Your task to perform on an android device: delete browsing data in the chrome app Image 0: 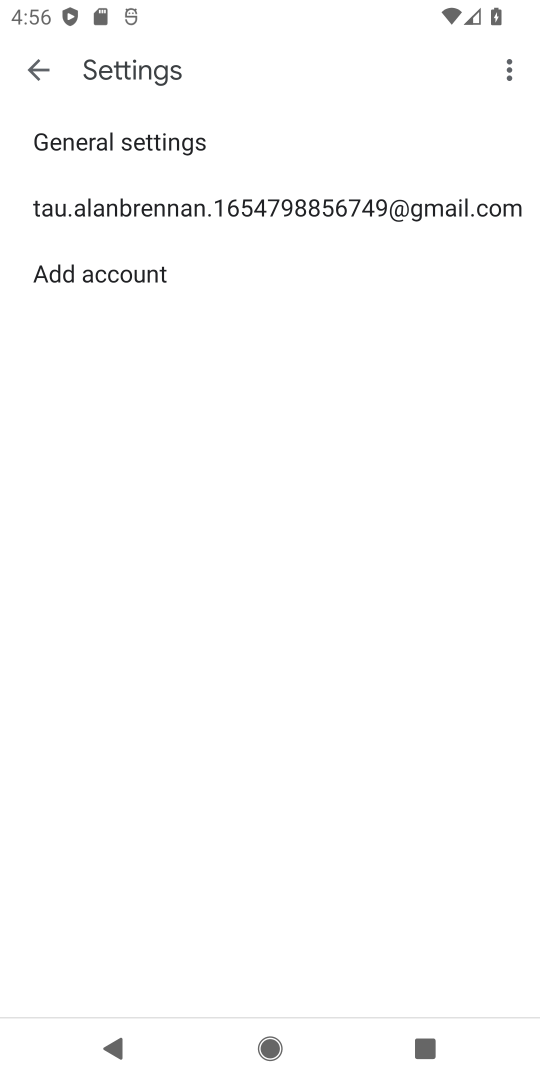
Step 0: press home button
Your task to perform on an android device: delete browsing data in the chrome app Image 1: 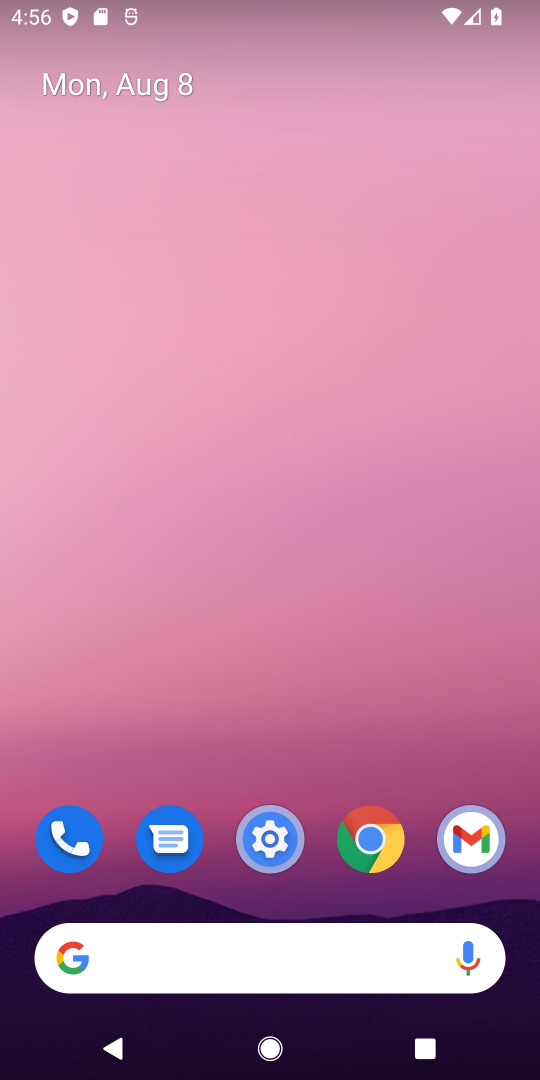
Step 1: click (367, 855)
Your task to perform on an android device: delete browsing data in the chrome app Image 2: 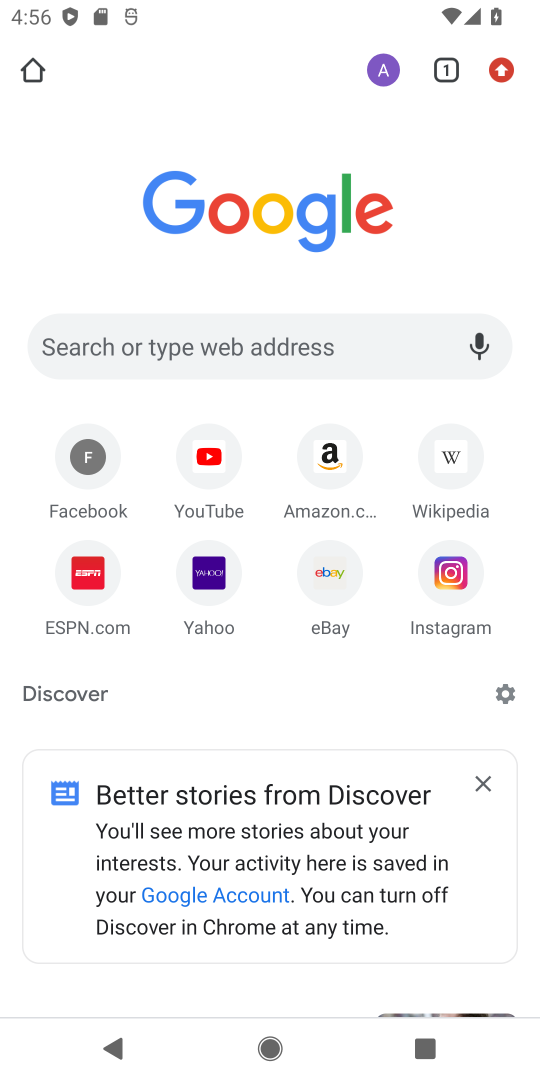
Step 2: click (502, 76)
Your task to perform on an android device: delete browsing data in the chrome app Image 3: 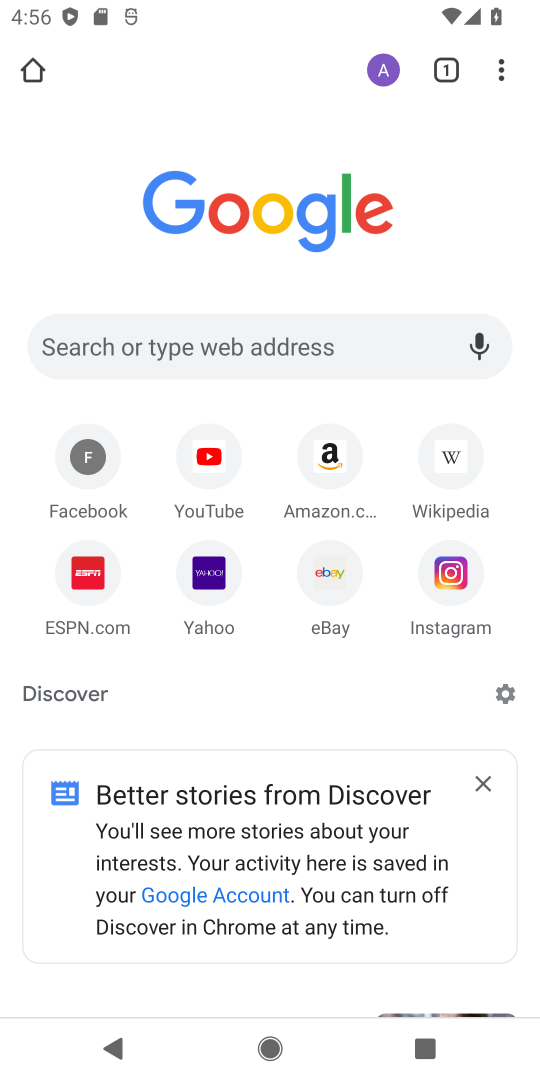
Step 3: click (502, 73)
Your task to perform on an android device: delete browsing data in the chrome app Image 4: 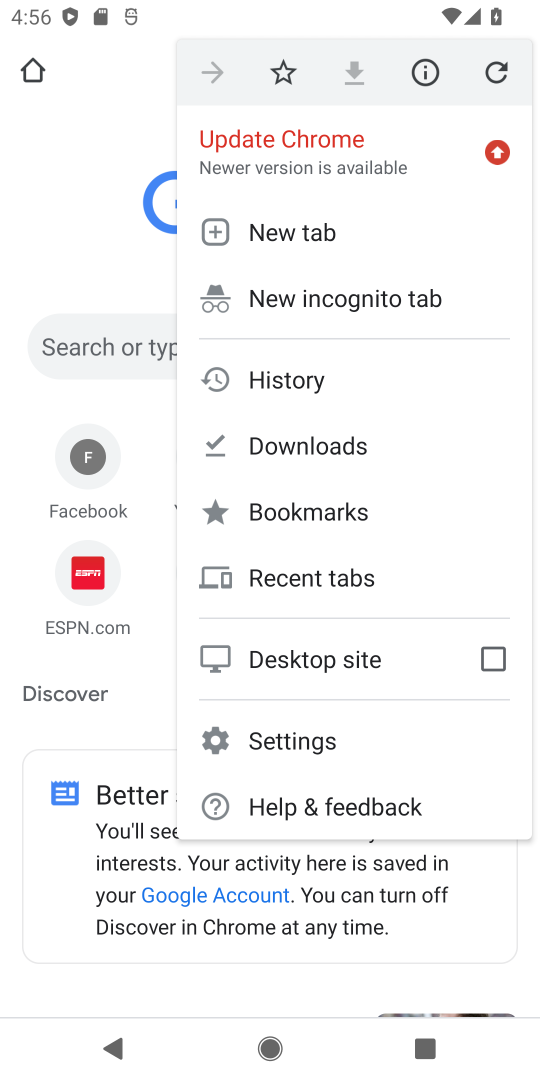
Step 4: click (294, 383)
Your task to perform on an android device: delete browsing data in the chrome app Image 5: 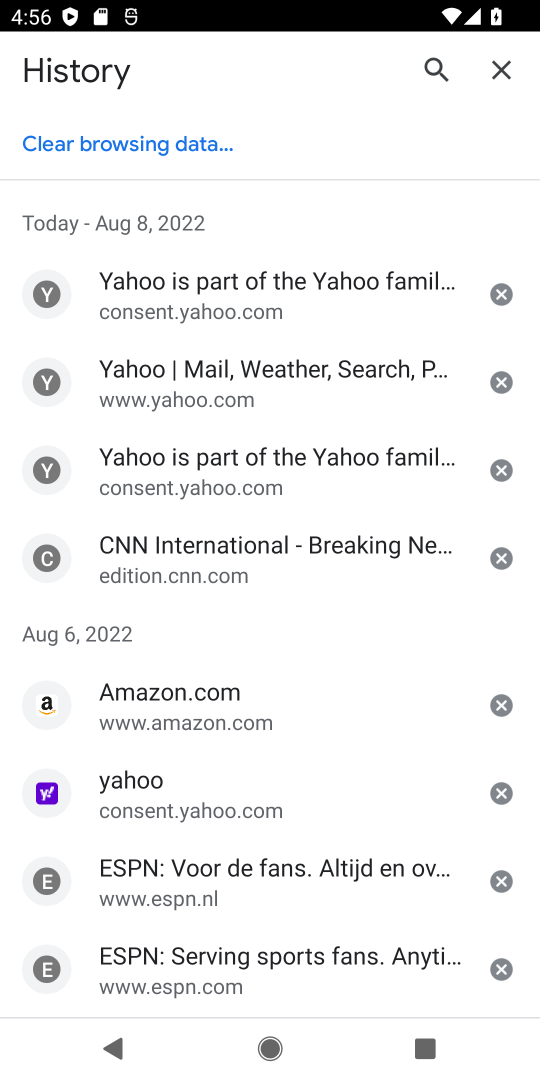
Step 5: click (166, 141)
Your task to perform on an android device: delete browsing data in the chrome app Image 6: 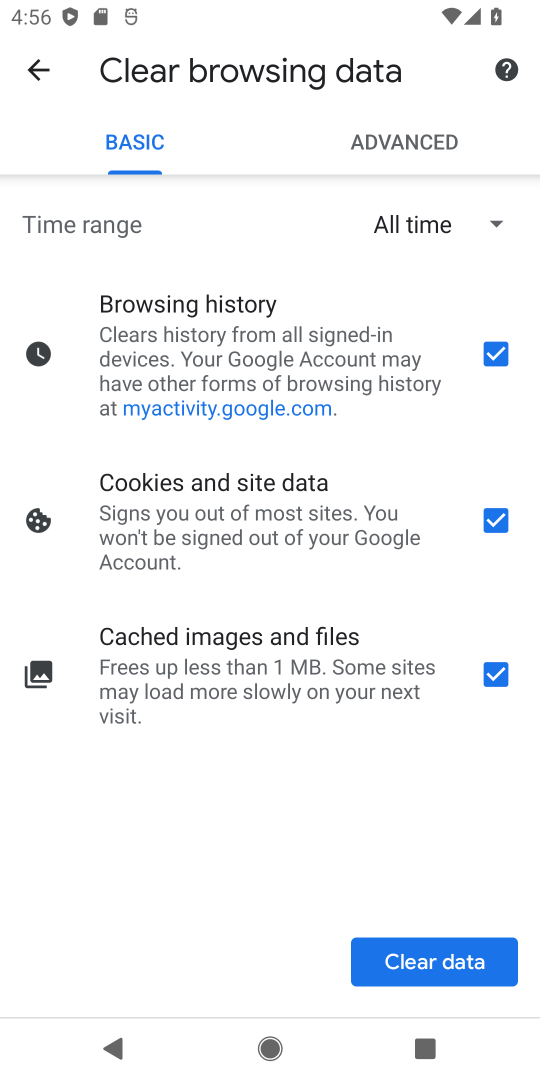
Step 6: click (418, 958)
Your task to perform on an android device: delete browsing data in the chrome app Image 7: 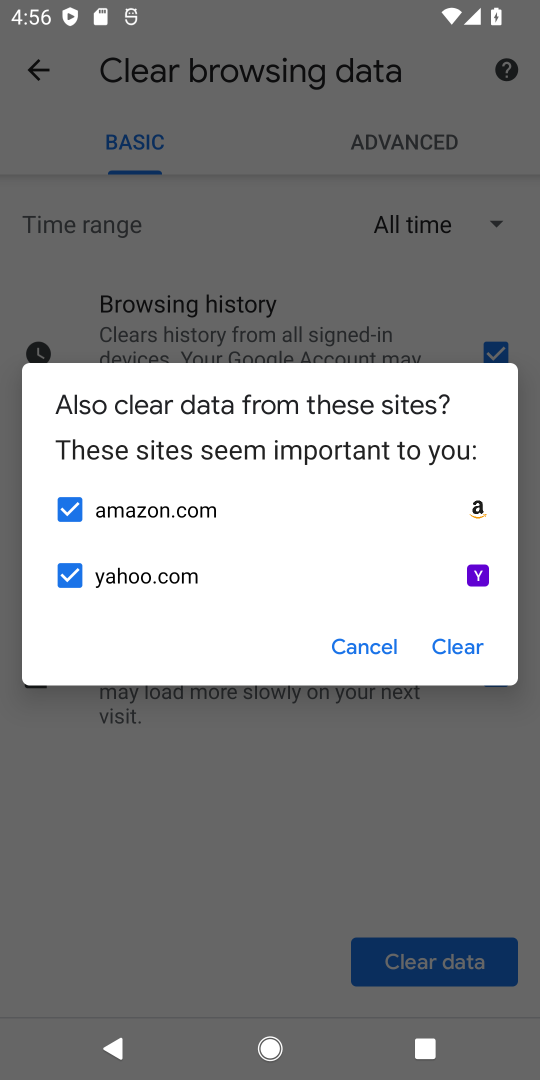
Step 7: click (469, 642)
Your task to perform on an android device: delete browsing data in the chrome app Image 8: 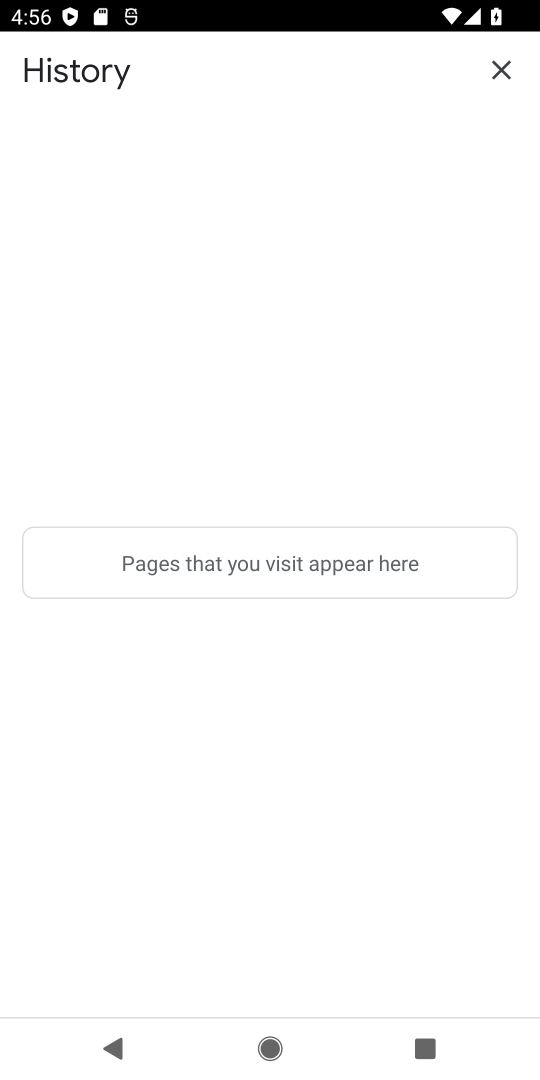
Step 8: task complete